Your task to perform on an android device: Go to Reddit.com Image 0: 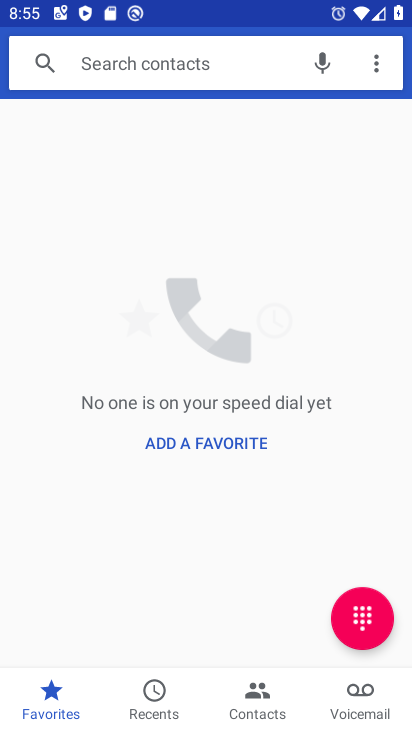
Step 0: press home button
Your task to perform on an android device: Go to Reddit.com Image 1: 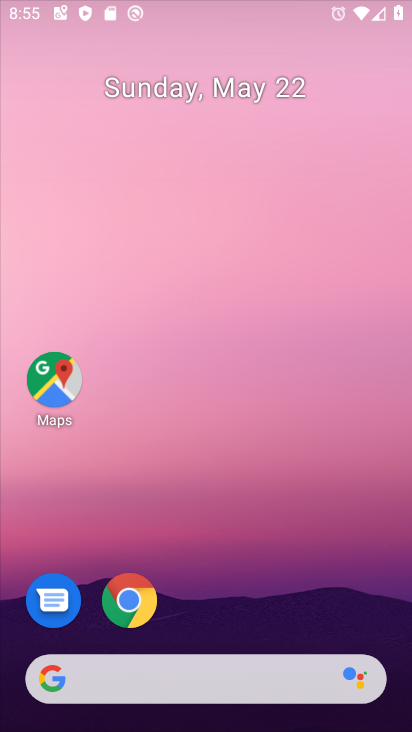
Step 1: drag from (159, 667) to (177, 233)
Your task to perform on an android device: Go to Reddit.com Image 2: 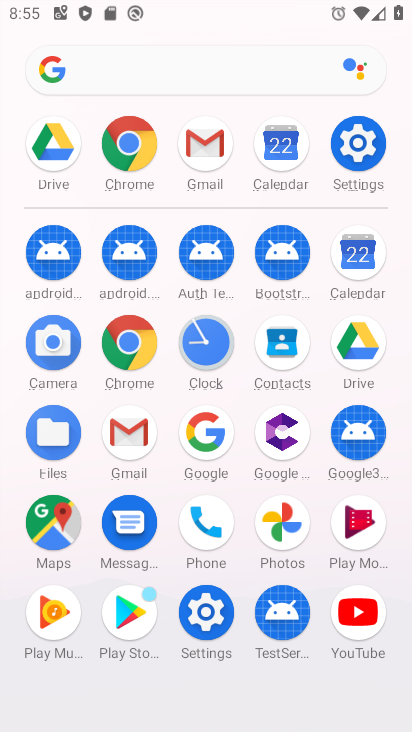
Step 2: click (127, 167)
Your task to perform on an android device: Go to Reddit.com Image 3: 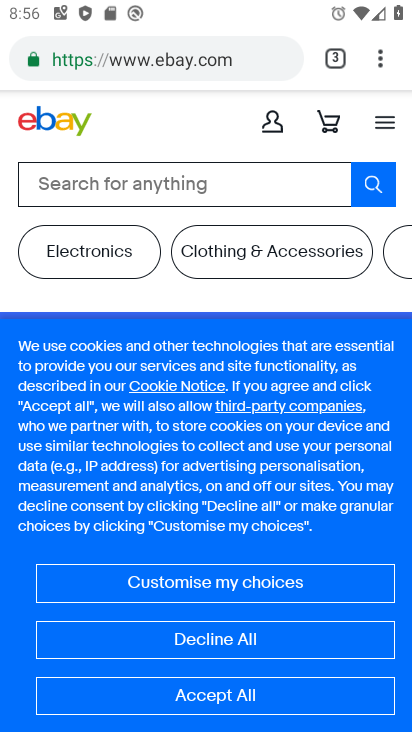
Step 3: click (213, 58)
Your task to perform on an android device: Go to Reddit.com Image 4: 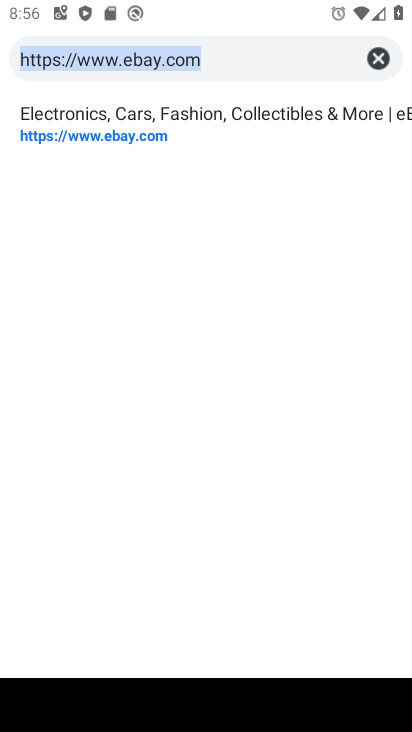
Step 4: type "reddit"
Your task to perform on an android device: Go to Reddit.com Image 5: 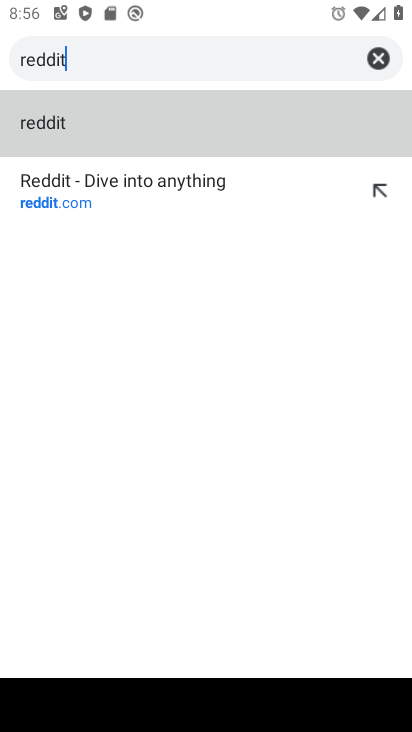
Step 5: click (176, 191)
Your task to perform on an android device: Go to Reddit.com Image 6: 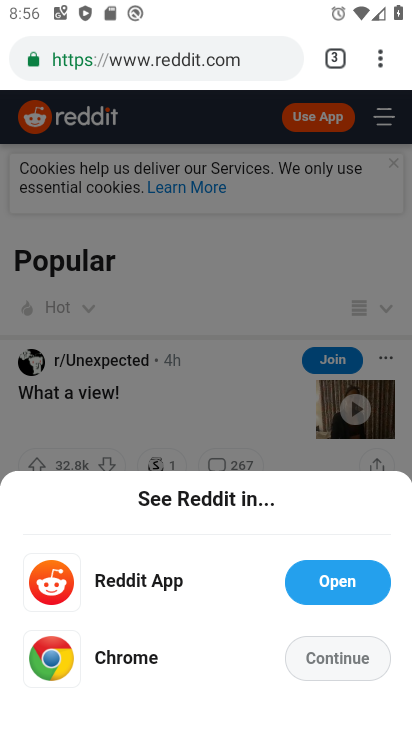
Step 6: click (337, 650)
Your task to perform on an android device: Go to Reddit.com Image 7: 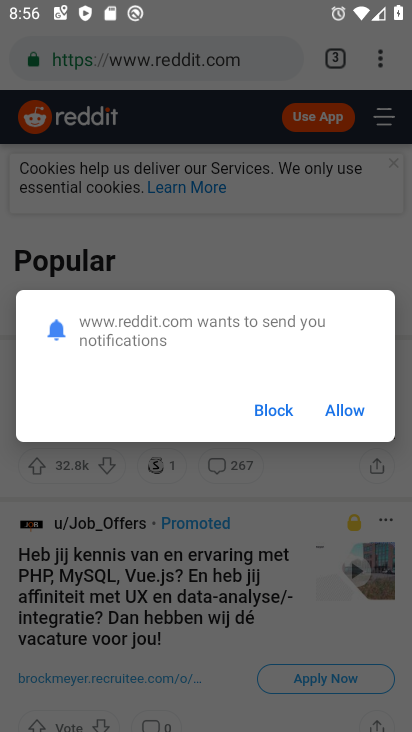
Step 7: task complete